Your task to perform on an android device: Show me popular videos on Youtube Image 0: 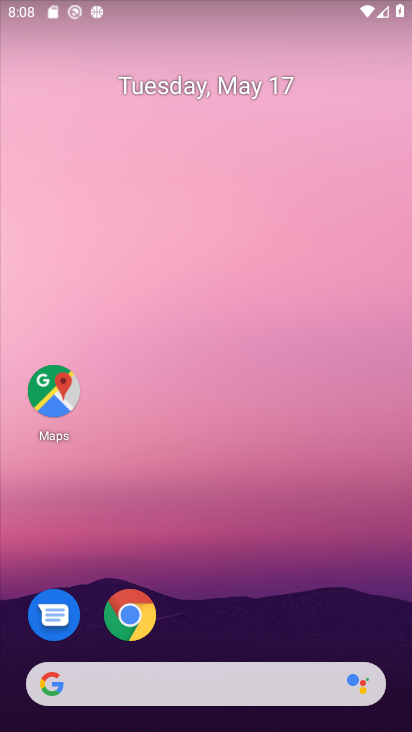
Step 0: drag from (207, 607) to (235, 49)
Your task to perform on an android device: Show me popular videos on Youtube Image 1: 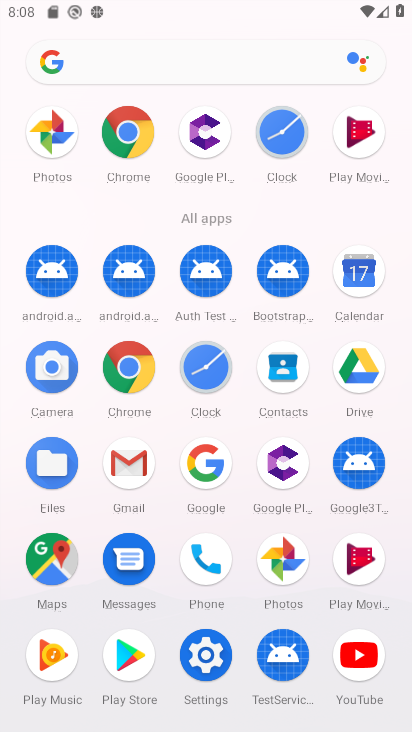
Step 1: click (356, 679)
Your task to perform on an android device: Show me popular videos on Youtube Image 2: 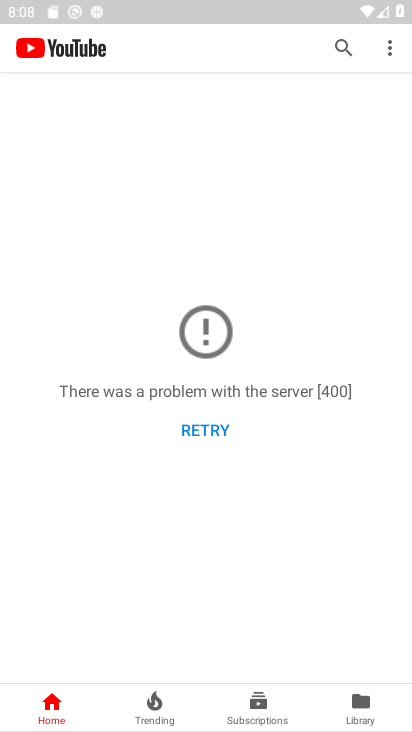
Step 2: click (160, 713)
Your task to perform on an android device: Show me popular videos on Youtube Image 3: 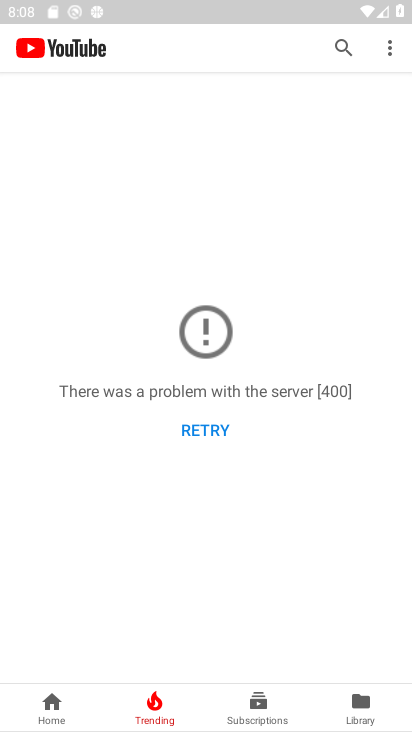
Step 3: task complete